Your task to perform on an android device: Go to Google Image 0: 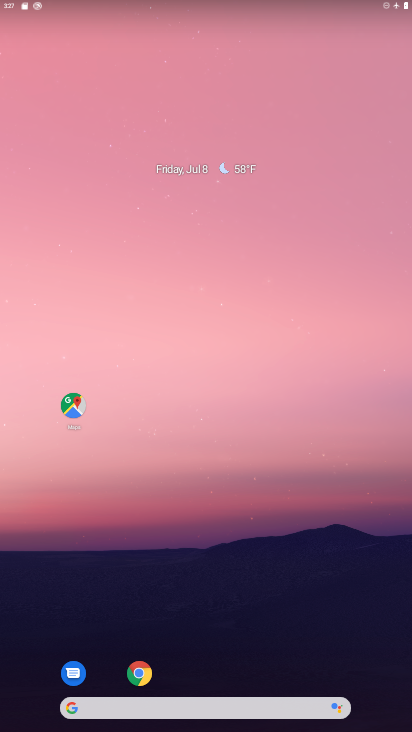
Step 0: drag from (159, 654) to (199, 370)
Your task to perform on an android device: Go to Google Image 1: 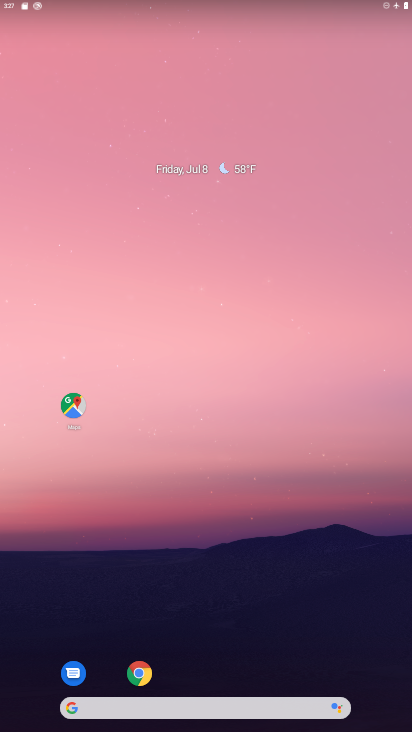
Step 1: drag from (144, 688) to (278, 307)
Your task to perform on an android device: Go to Google Image 2: 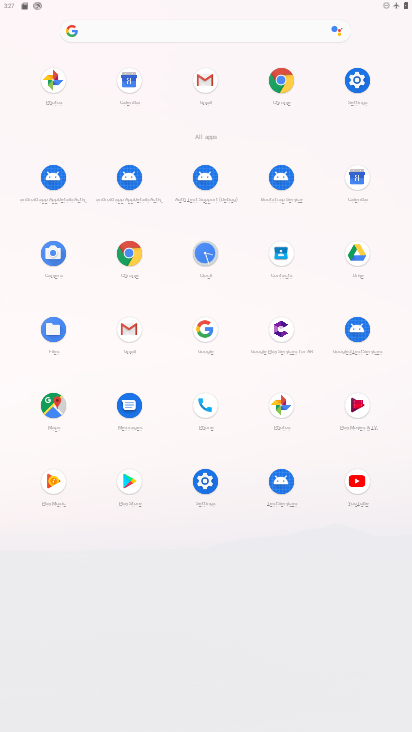
Step 2: click (205, 323)
Your task to perform on an android device: Go to Google Image 3: 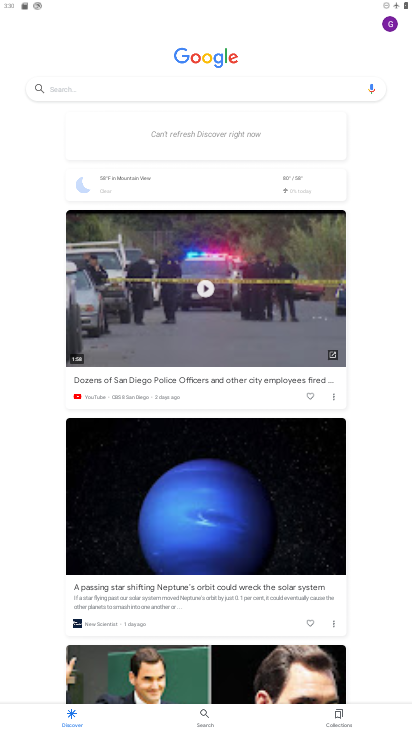
Step 3: task complete